Your task to perform on an android device: allow cookies in the chrome app Image 0: 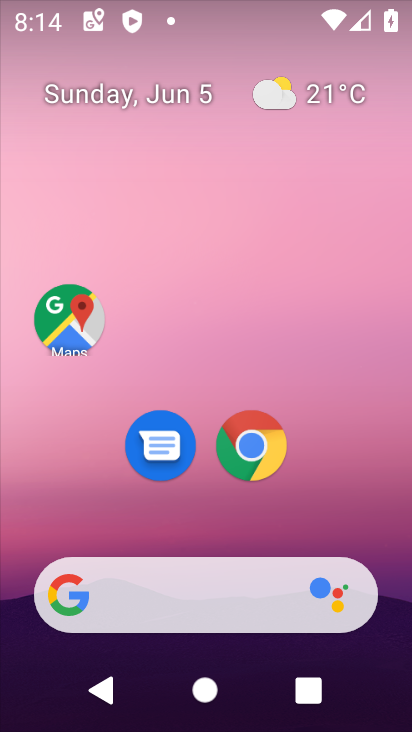
Step 0: press home button
Your task to perform on an android device: allow cookies in the chrome app Image 1: 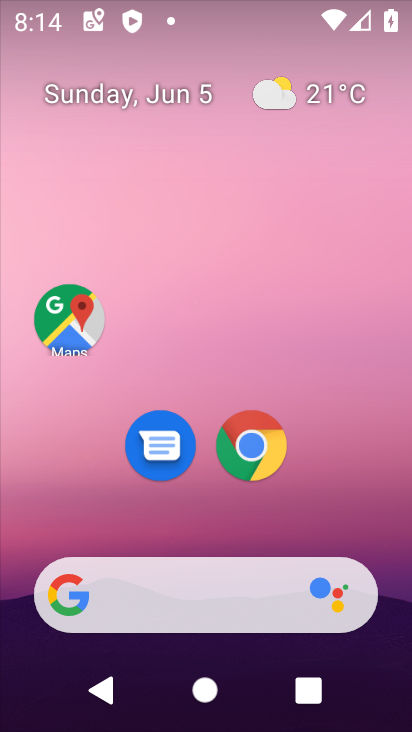
Step 1: click (242, 447)
Your task to perform on an android device: allow cookies in the chrome app Image 2: 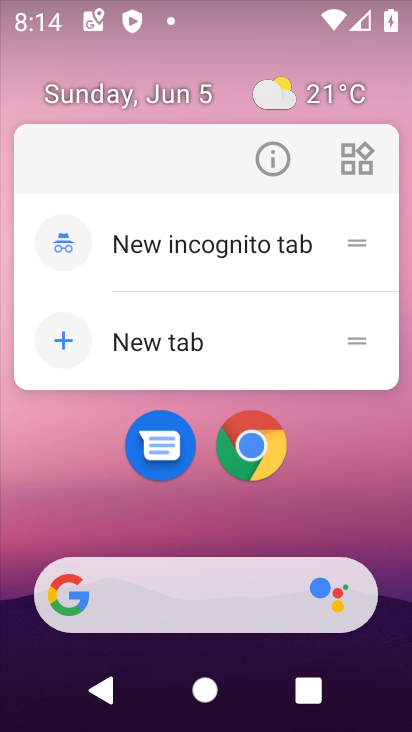
Step 2: click (240, 446)
Your task to perform on an android device: allow cookies in the chrome app Image 3: 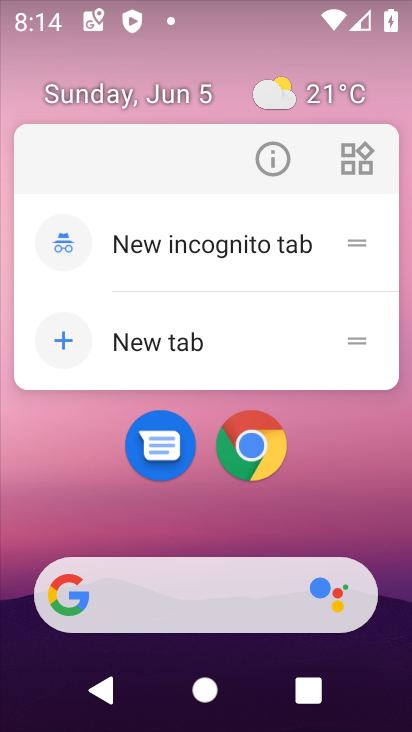
Step 3: click (265, 457)
Your task to perform on an android device: allow cookies in the chrome app Image 4: 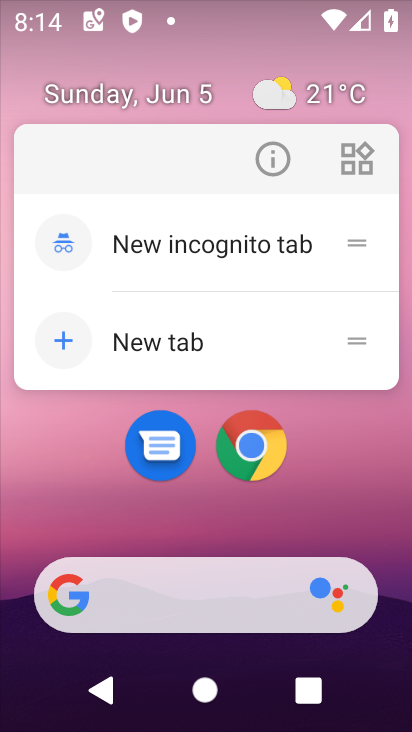
Step 4: click (376, 473)
Your task to perform on an android device: allow cookies in the chrome app Image 5: 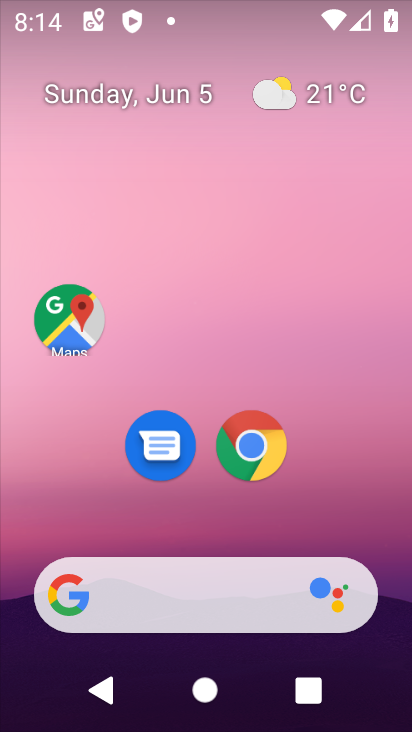
Step 5: drag from (231, 472) to (205, 96)
Your task to perform on an android device: allow cookies in the chrome app Image 6: 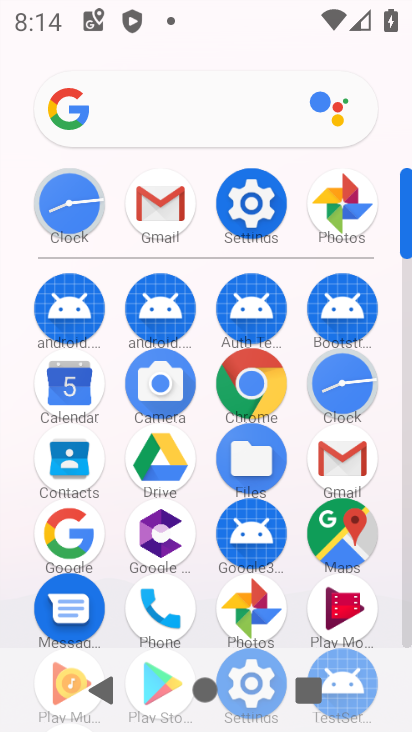
Step 6: click (257, 382)
Your task to perform on an android device: allow cookies in the chrome app Image 7: 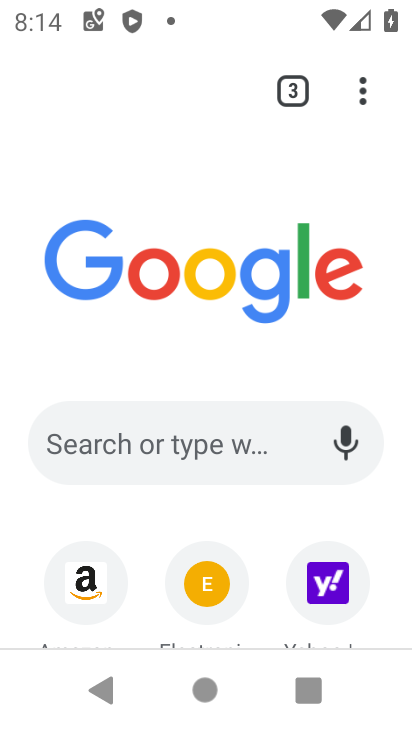
Step 7: drag from (368, 97) to (93, 481)
Your task to perform on an android device: allow cookies in the chrome app Image 8: 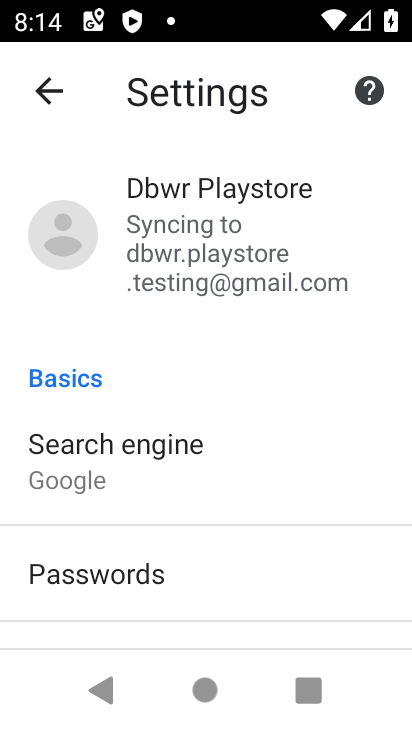
Step 8: drag from (278, 501) to (278, 21)
Your task to perform on an android device: allow cookies in the chrome app Image 9: 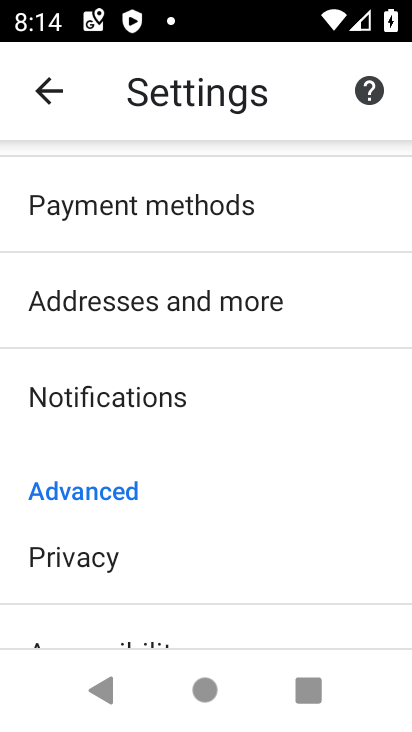
Step 9: drag from (237, 509) to (245, 129)
Your task to perform on an android device: allow cookies in the chrome app Image 10: 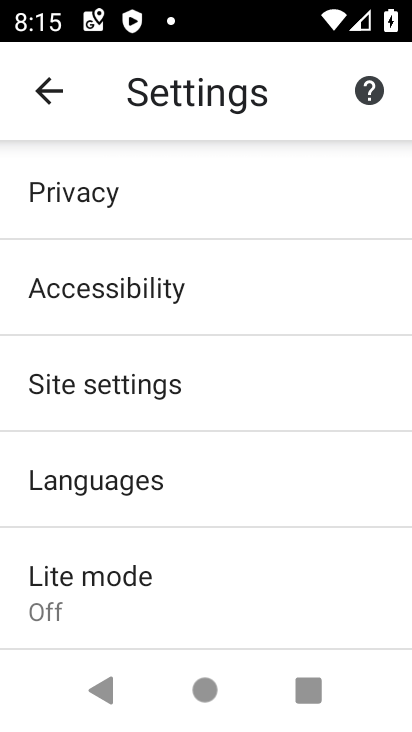
Step 10: click (110, 389)
Your task to perform on an android device: allow cookies in the chrome app Image 11: 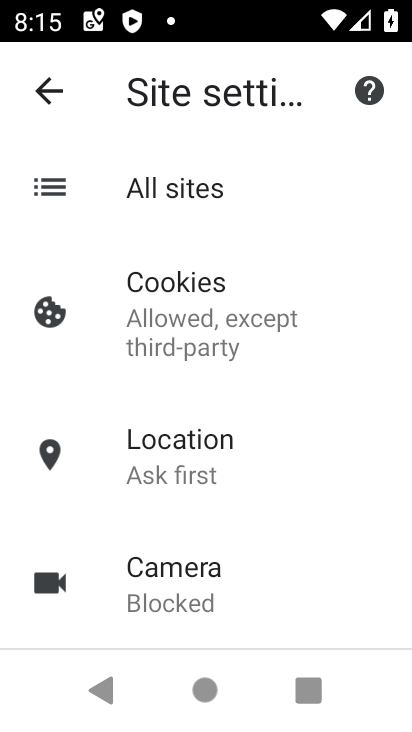
Step 11: click (187, 306)
Your task to perform on an android device: allow cookies in the chrome app Image 12: 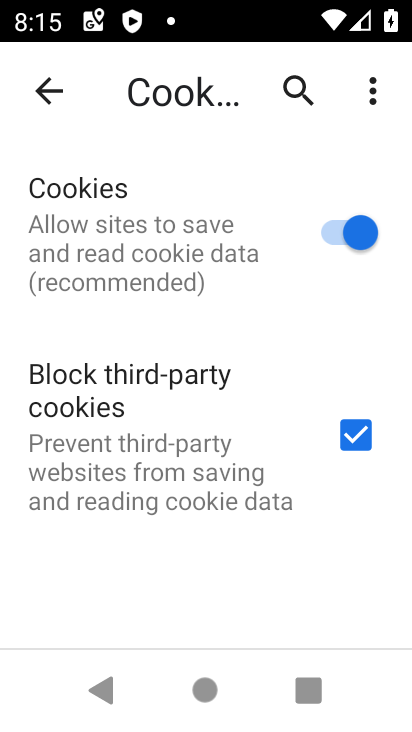
Step 12: task complete